Your task to perform on an android device: turn off data saver in the chrome app Image 0: 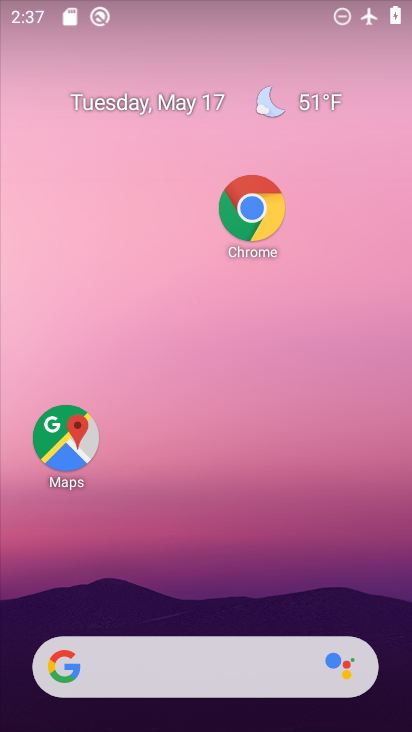
Step 0: click (257, 216)
Your task to perform on an android device: turn off data saver in the chrome app Image 1: 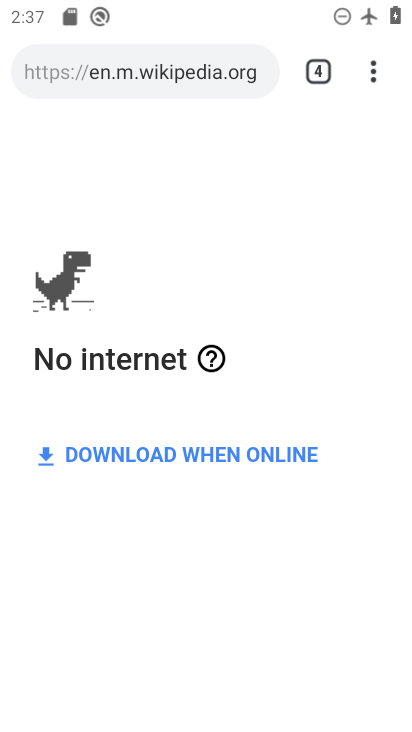
Step 1: drag from (371, 85) to (152, 573)
Your task to perform on an android device: turn off data saver in the chrome app Image 2: 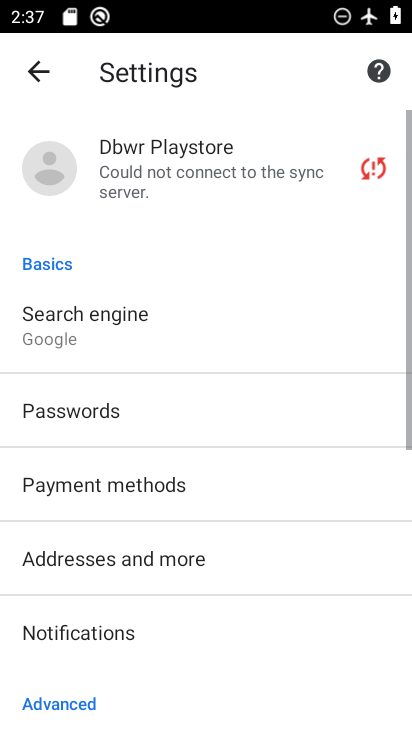
Step 2: drag from (161, 563) to (107, 107)
Your task to perform on an android device: turn off data saver in the chrome app Image 3: 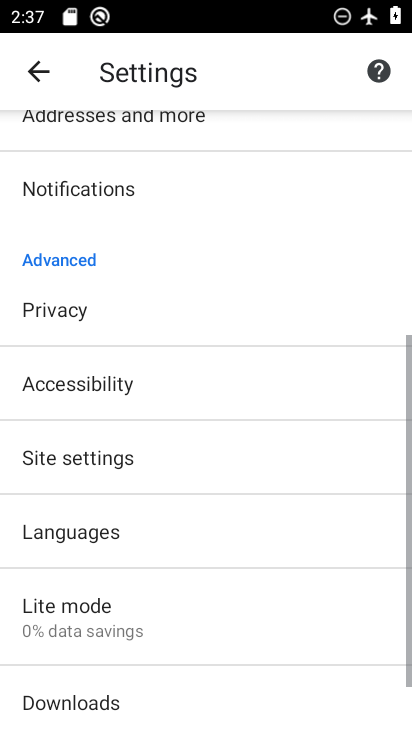
Step 3: click (71, 621)
Your task to perform on an android device: turn off data saver in the chrome app Image 4: 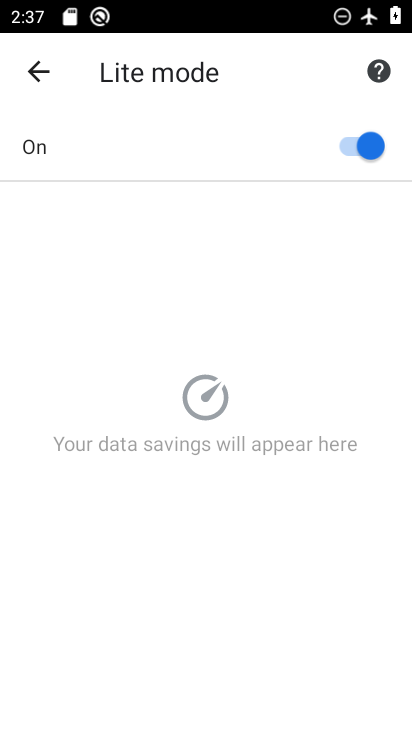
Step 4: click (350, 144)
Your task to perform on an android device: turn off data saver in the chrome app Image 5: 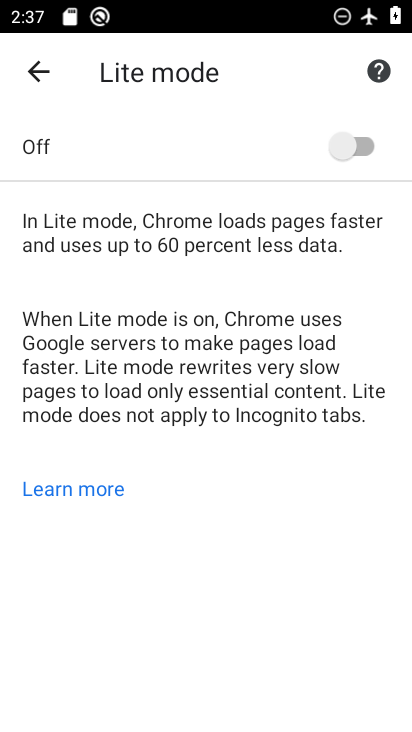
Step 5: task complete